Your task to perform on an android device: Open Google Maps and go to "Timeline" Image 0: 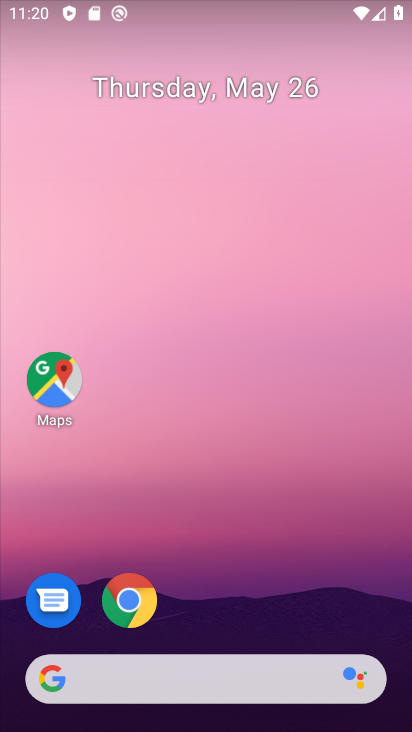
Step 0: click (61, 390)
Your task to perform on an android device: Open Google Maps and go to "Timeline" Image 1: 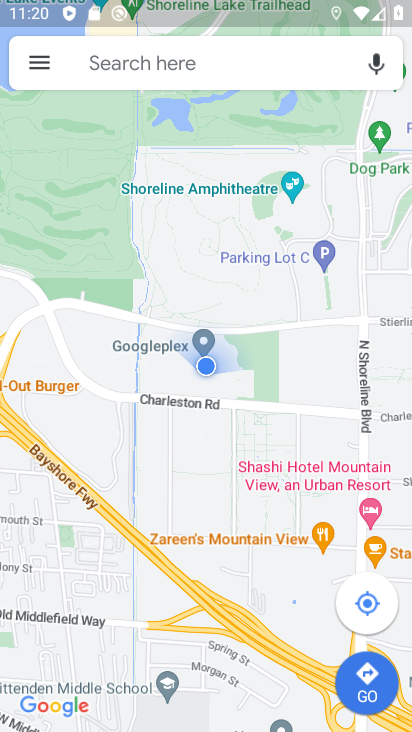
Step 1: click (36, 63)
Your task to perform on an android device: Open Google Maps and go to "Timeline" Image 2: 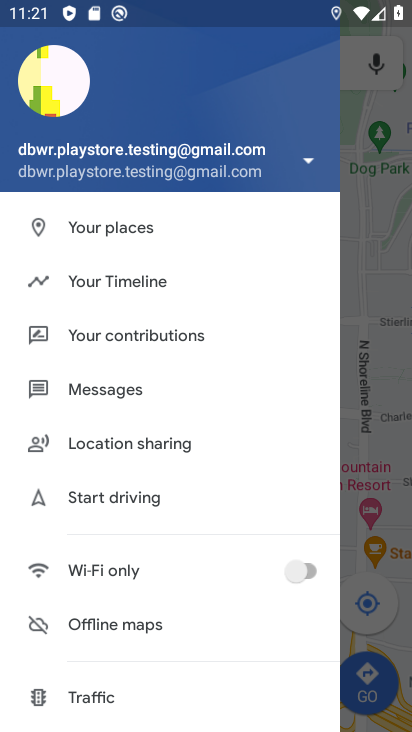
Step 2: click (86, 289)
Your task to perform on an android device: Open Google Maps and go to "Timeline" Image 3: 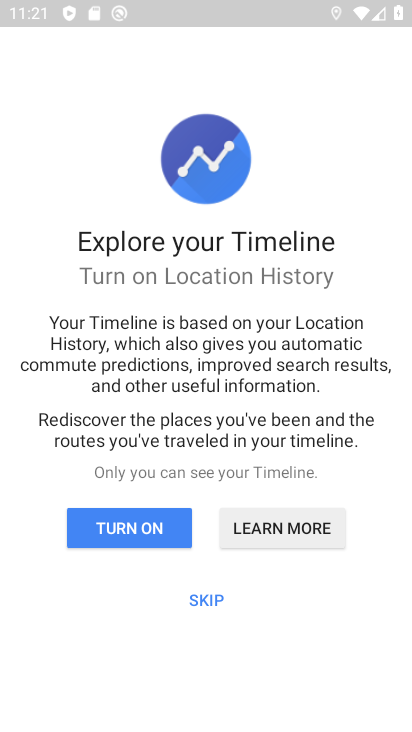
Step 3: click (156, 505)
Your task to perform on an android device: Open Google Maps and go to "Timeline" Image 4: 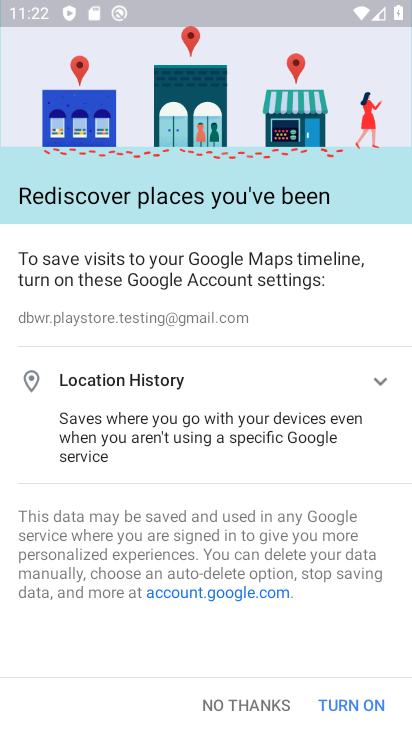
Step 4: click (341, 710)
Your task to perform on an android device: Open Google Maps and go to "Timeline" Image 5: 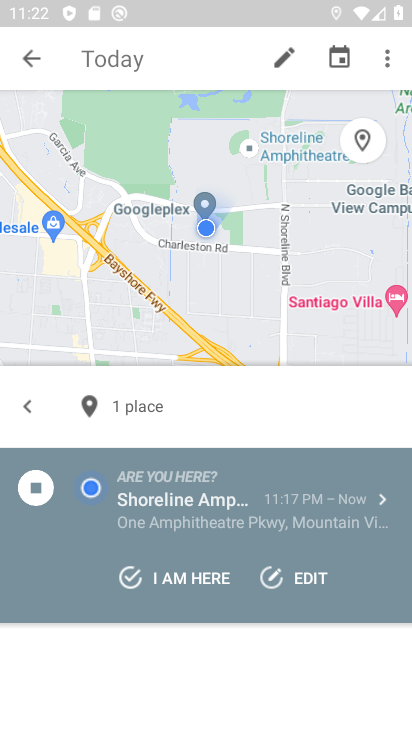
Step 5: task complete